Your task to perform on an android device: Set the phone to "Do not disturb". Image 0: 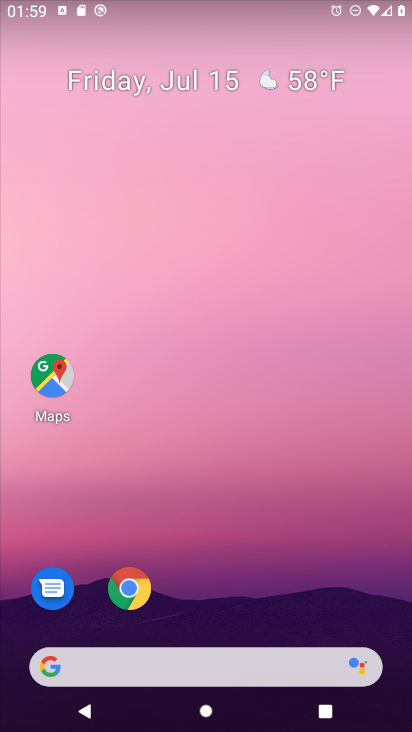
Step 0: drag from (383, 606) to (341, 191)
Your task to perform on an android device: Set the phone to "Do not disturb". Image 1: 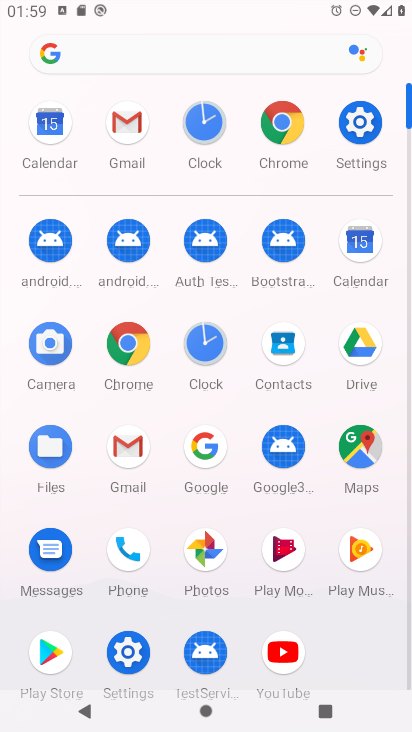
Step 1: click (129, 651)
Your task to perform on an android device: Set the phone to "Do not disturb". Image 2: 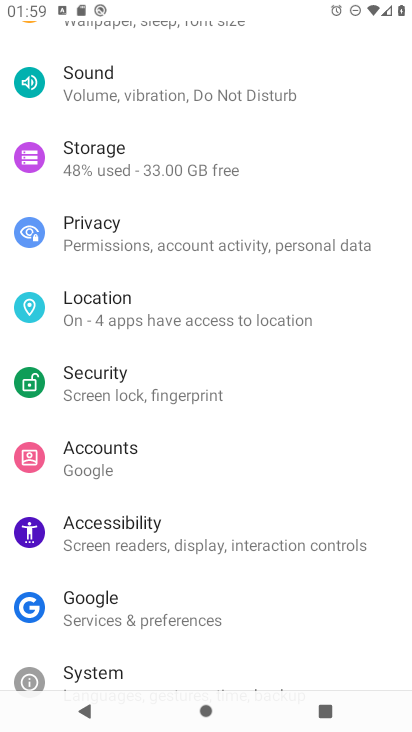
Step 2: drag from (304, 228) to (300, 436)
Your task to perform on an android device: Set the phone to "Do not disturb". Image 3: 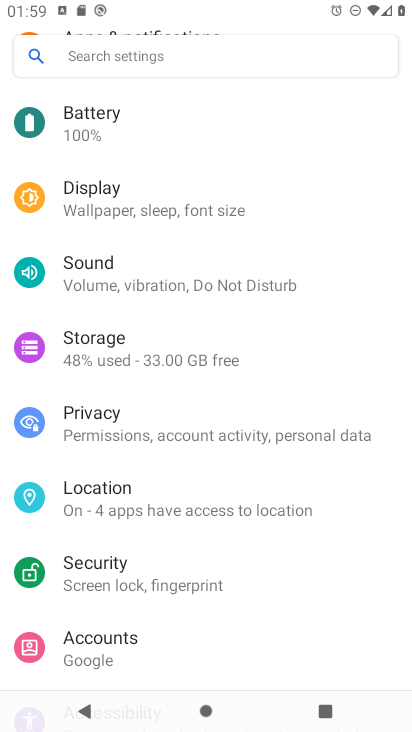
Step 3: click (76, 274)
Your task to perform on an android device: Set the phone to "Do not disturb". Image 4: 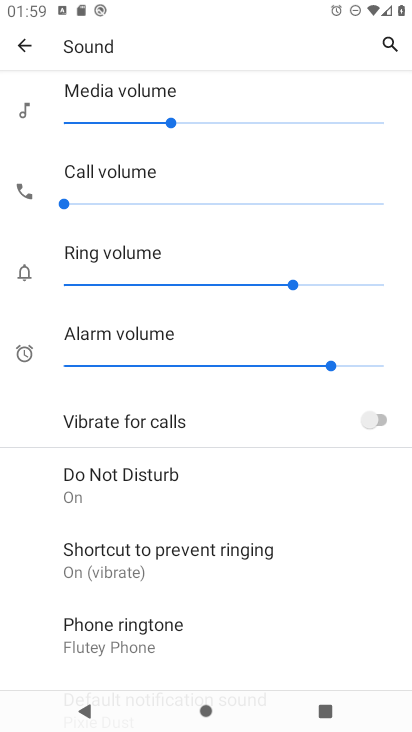
Step 4: click (96, 467)
Your task to perform on an android device: Set the phone to "Do not disturb". Image 5: 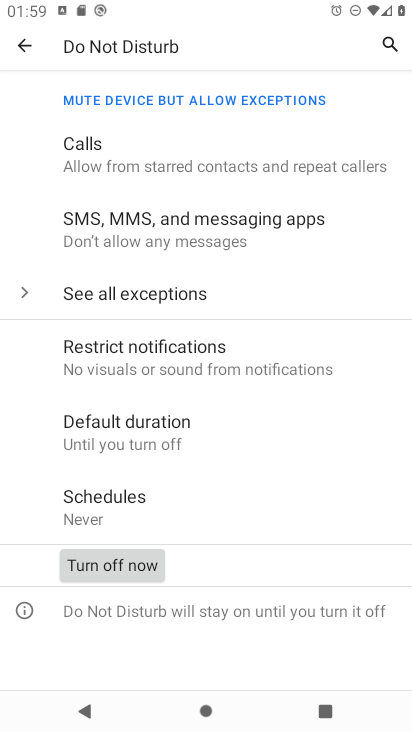
Step 5: task complete